Your task to perform on an android device: snooze an email in the gmail app Image 0: 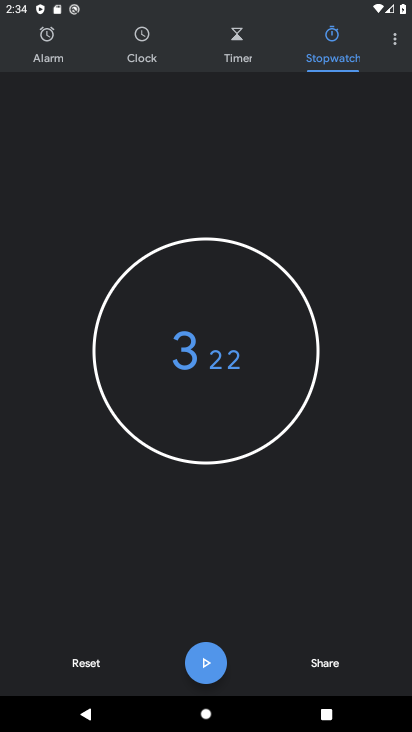
Step 0: press home button
Your task to perform on an android device: snooze an email in the gmail app Image 1: 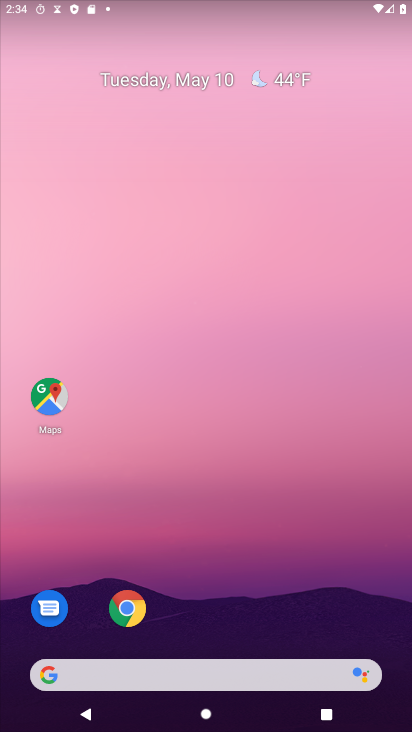
Step 1: drag from (279, 595) to (255, 0)
Your task to perform on an android device: snooze an email in the gmail app Image 2: 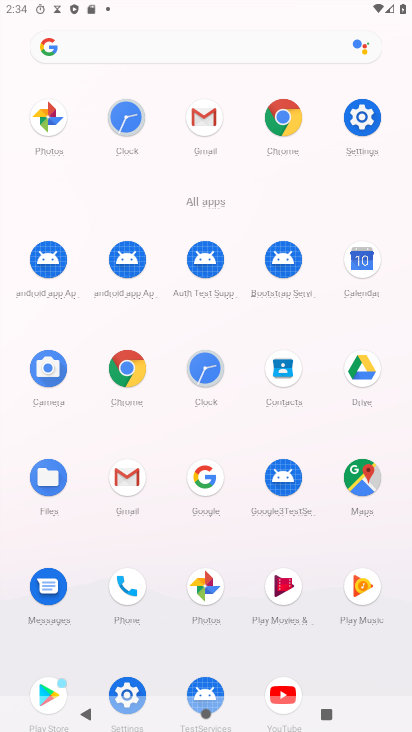
Step 2: click (193, 125)
Your task to perform on an android device: snooze an email in the gmail app Image 3: 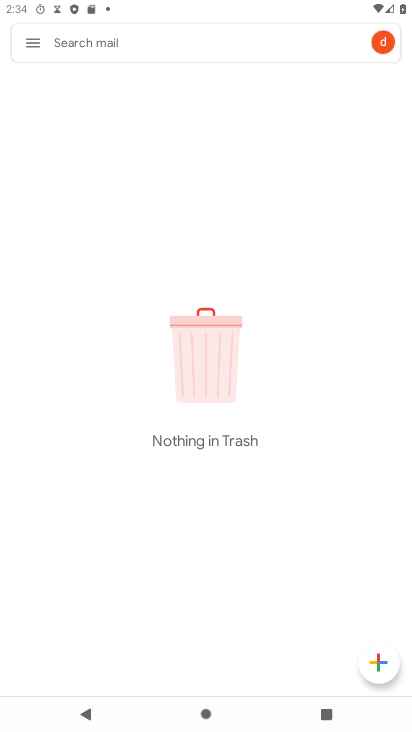
Step 3: click (36, 49)
Your task to perform on an android device: snooze an email in the gmail app Image 4: 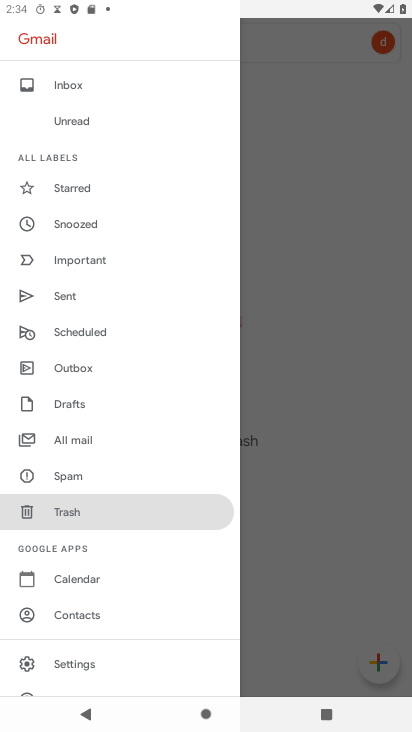
Step 4: click (72, 436)
Your task to perform on an android device: snooze an email in the gmail app Image 5: 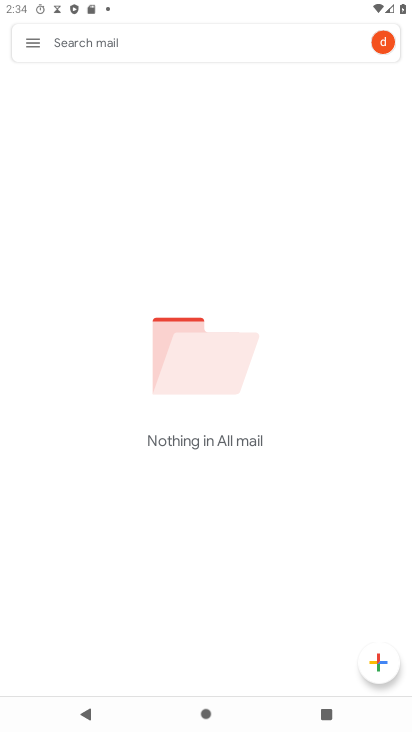
Step 5: task complete